Your task to perform on an android device: turn smart compose on in the gmail app Image 0: 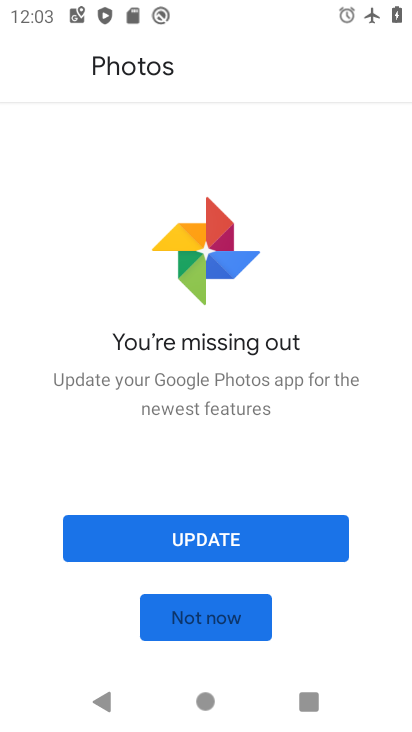
Step 0: press home button
Your task to perform on an android device: turn smart compose on in the gmail app Image 1: 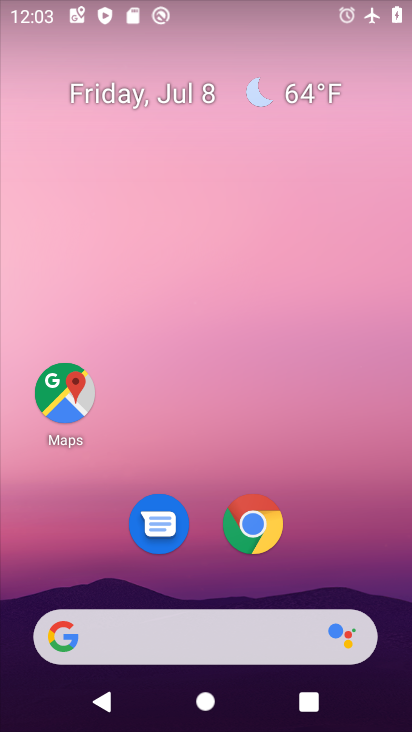
Step 1: drag from (220, 454) to (257, 3)
Your task to perform on an android device: turn smart compose on in the gmail app Image 2: 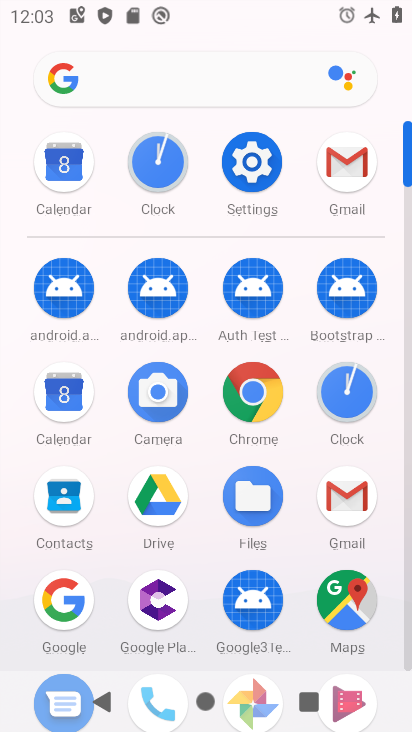
Step 2: drag from (217, 402) to (225, 230)
Your task to perform on an android device: turn smart compose on in the gmail app Image 3: 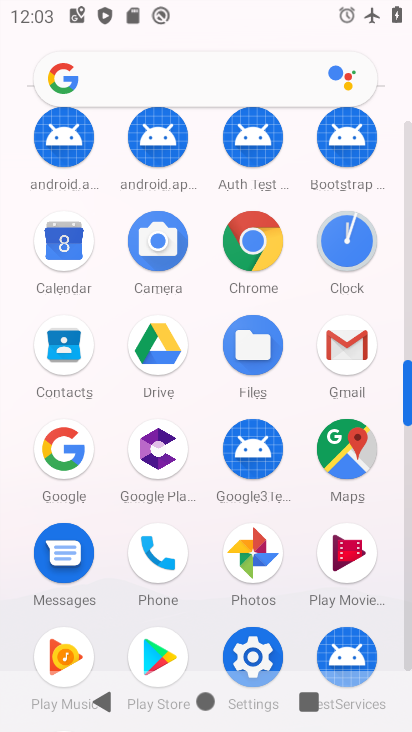
Step 3: drag from (207, 180) to (250, 362)
Your task to perform on an android device: turn smart compose on in the gmail app Image 4: 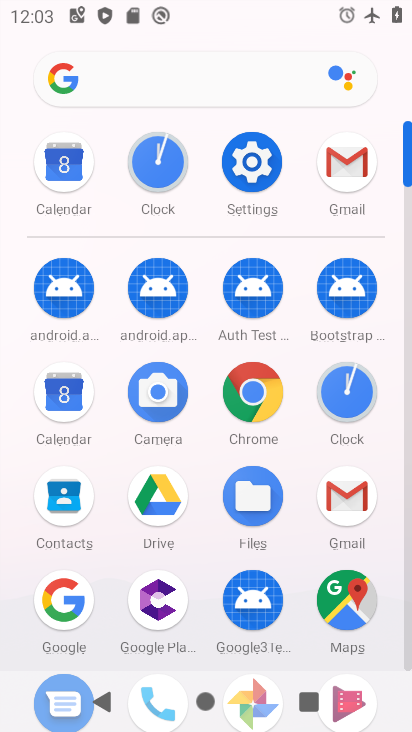
Step 4: drag from (212, 339) to (200, 150)
Your task to perform on an android device: turn smart compose on in the gmail app Image 5: 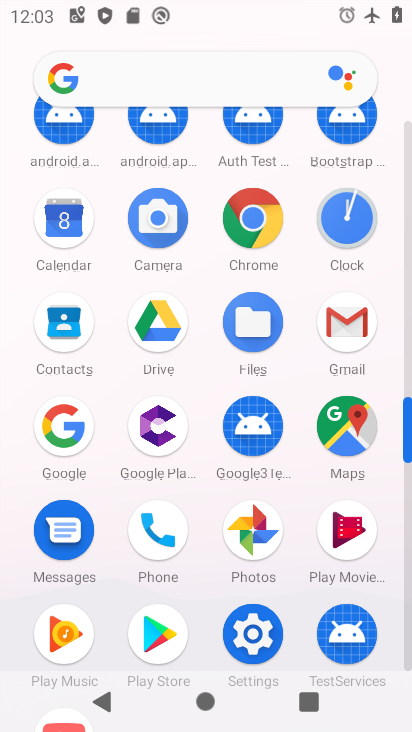
Step 5: click (351, 323)
Your task to perform on an android device: turn smart compose on in the gmail app Image 6: 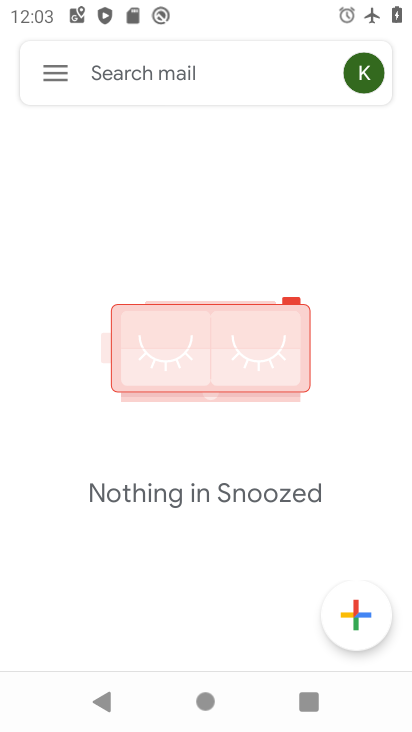
Step 6: click (61, 74)
Your task to perform on an android device: turn smart compose on in the gmail app Image 7: 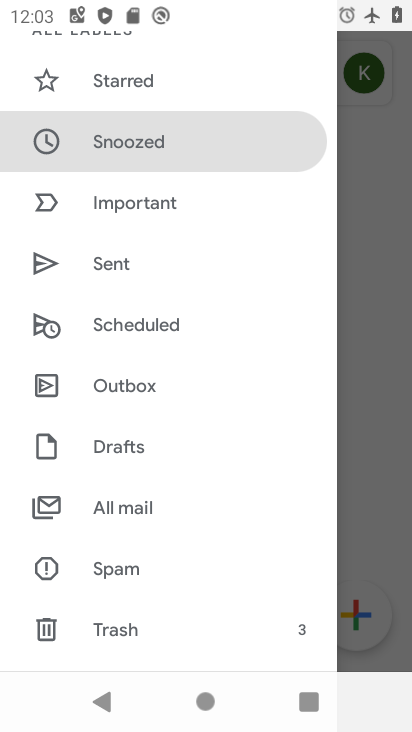
Step 7: drag from (161, 443) to (163, 51)
Your task to perform on an android device: turn smart compose on in the gmail app Image 8: 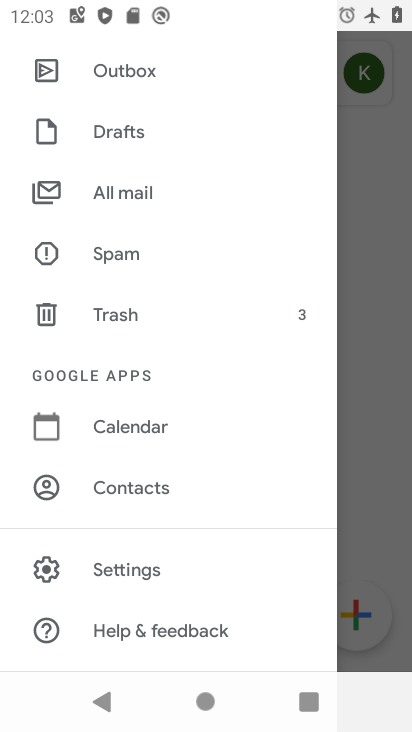
Step 8: click (152, 570)
Your task to perform on an android device: turn smart compose on in the gmail app Image 9: 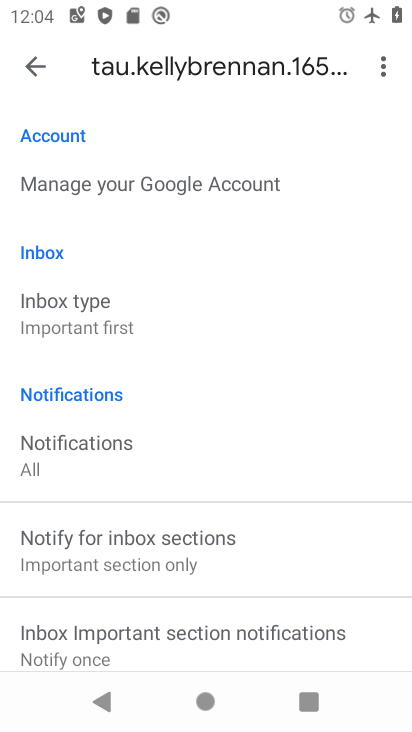
Step 9: task complete